Your task to perform on an android device: What is the news today? Image 0: 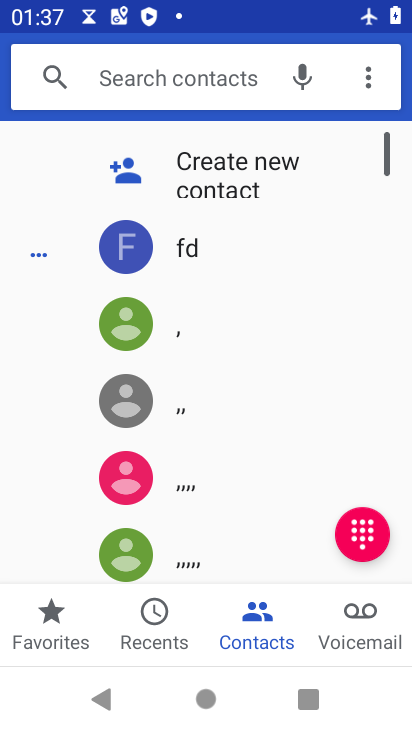
Step 0: press home button
Your task to perform on an android device: What is the news today? Image 1: 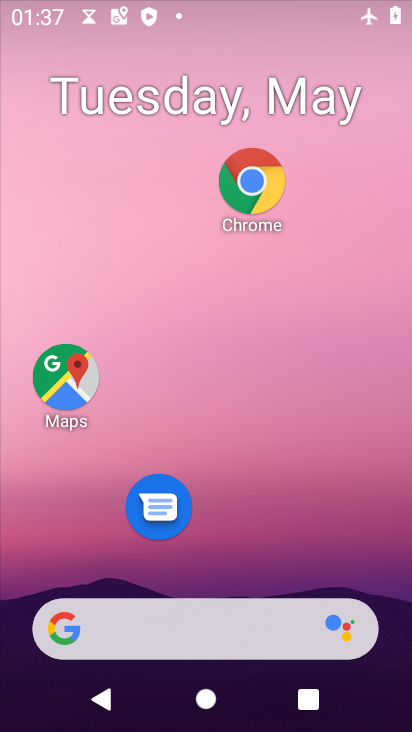
Step 1: drag from (303, 547) to (295, 328)
Your task to perform on an android device: What is the news today? Image 2: 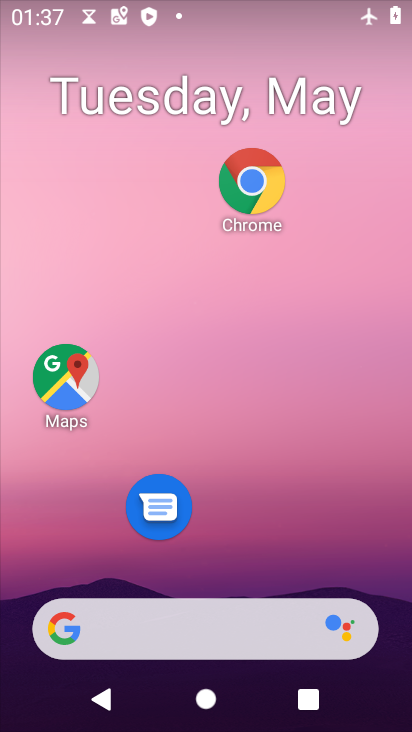
Step 2: drag from (260, 578) to (256, 371)
Your task to perform on an android device: What is the news today? Image 3: 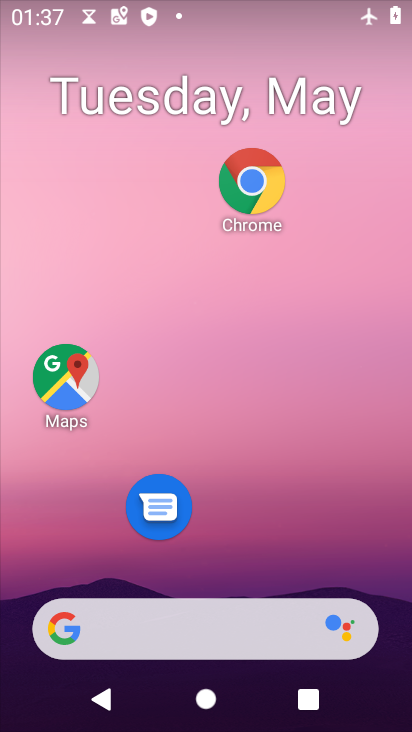
Step 3: drag from (250, 587) to (245, 358)
Your task to perform on an android device: What is the news today? Image 4: 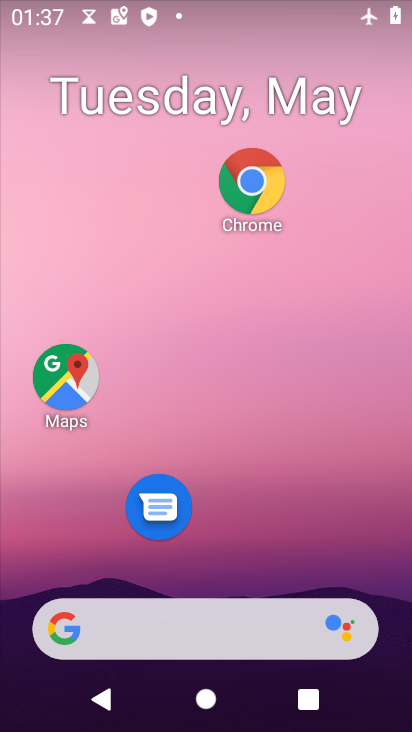
Step 4: drag from (261, 619) to (254, 297)
Your task to perform on an android device: What is the news today? Image 5: 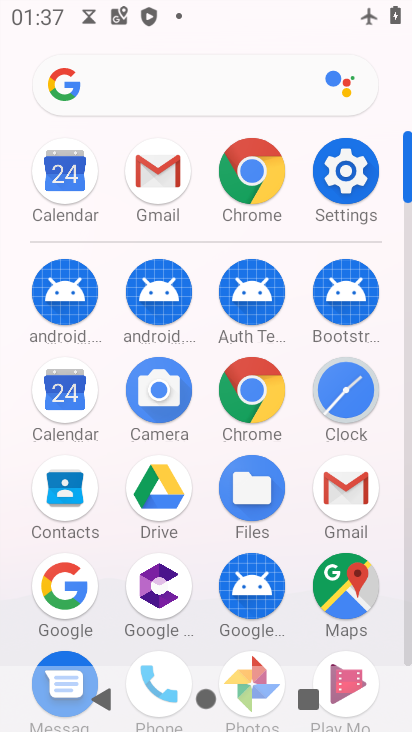
Step 5: click (228, 170)
Your task to perform on an android device: What is the news today? Image 6: 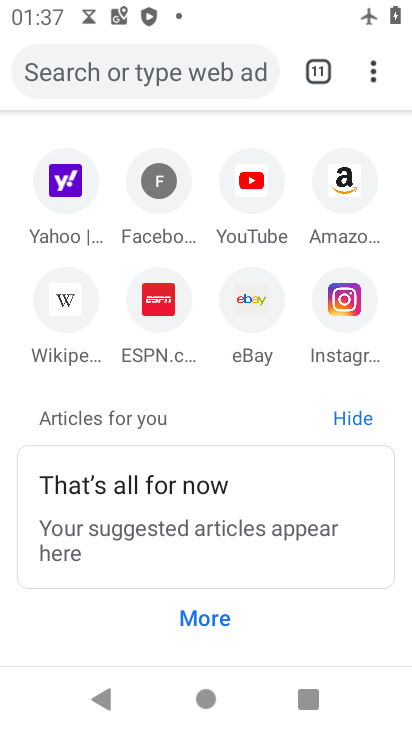
Step 6: click (189, 64)
Your task to perform on an android device: What is the news today? Image 7: 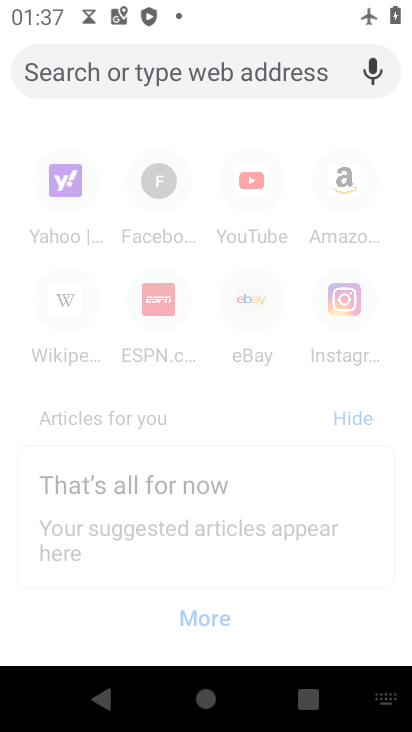
Step 7: click (176, 62)
Your task to perform on an android device: What is the news today? Image 8: 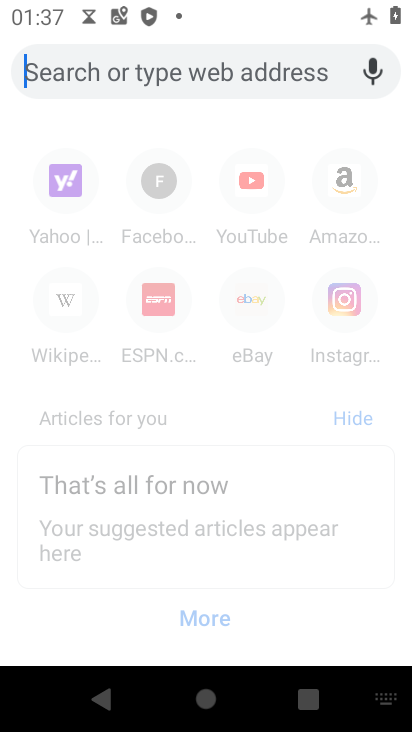
Step 8: type "What is the news today?"
Your task to perform on an android device: What is the news today? Image 9: 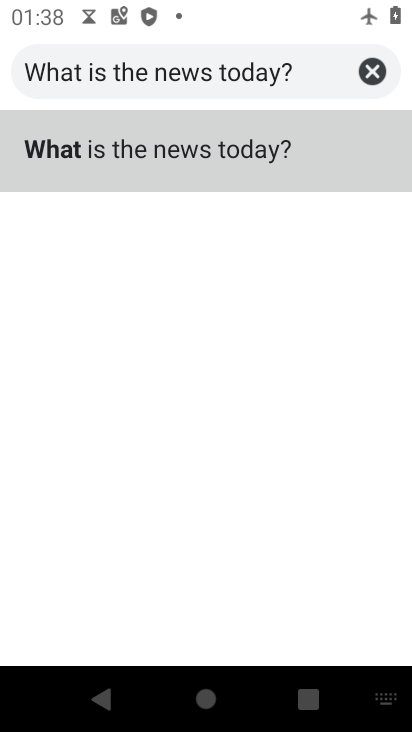
Step 9: click (139, 162)
Your task to perform on an android device: What is the news today? Image 10: 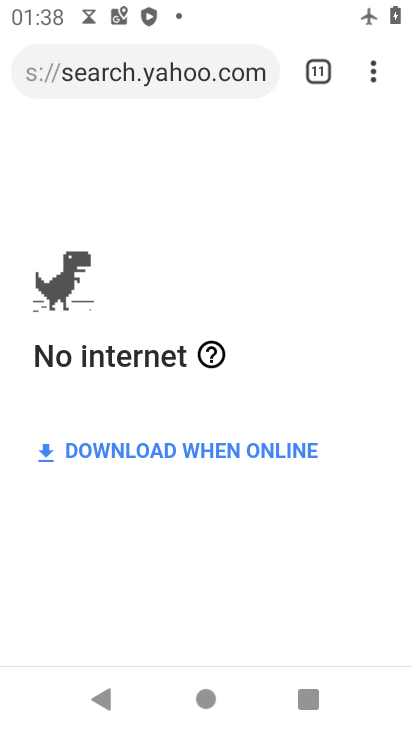
Step 10: task complete